Your task to perform on an android device: turn on bluetooth scan Image 0: 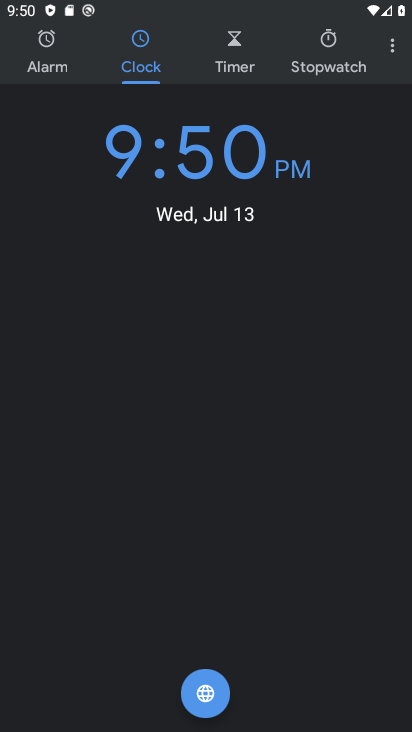
Step 0: press home button
Your task to perform on an android device: turn on bluetooth scan Image 1: 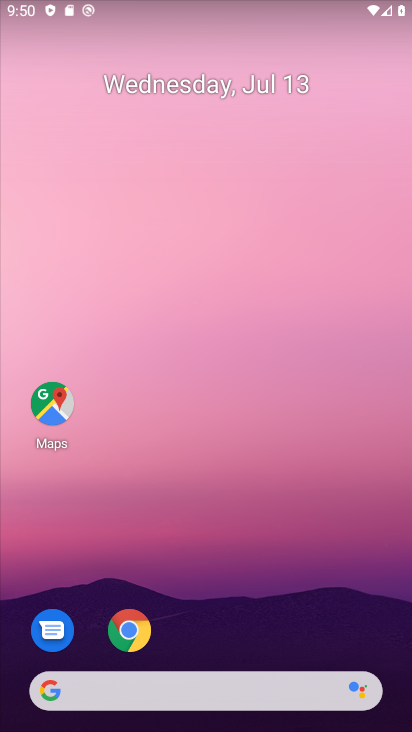
Step 1: drag from (263, 607) to (268, 56)
Your task to perform on an android device: turn on bluetooth scan Image 2: 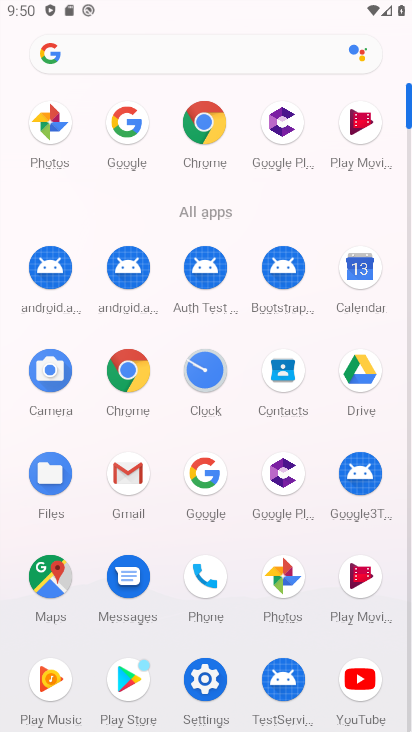
Step 2: click (203, 675)
Your task to perform on an android device: turn on bluetooth scan Image 3: 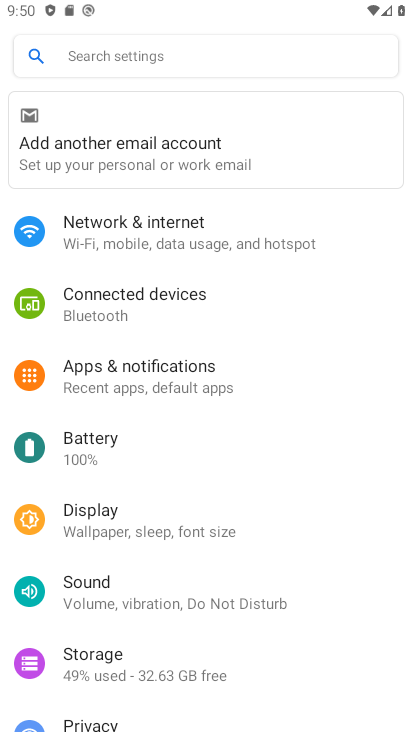
Step 3: drag from (92, 707) to (91, 483)
Your task to perform on an android device: turn on bluetooth scan Image 4: 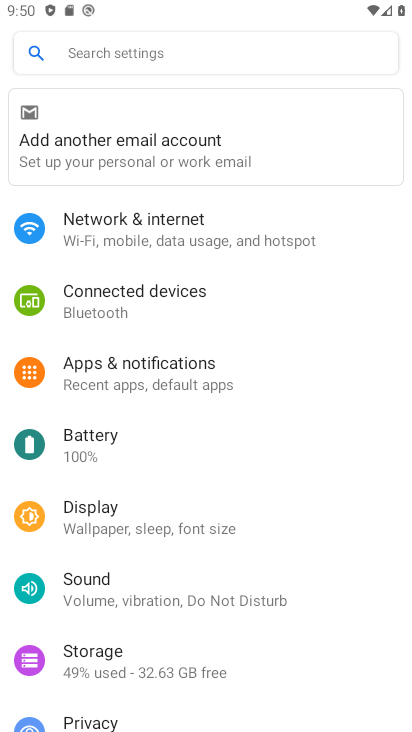
Step 4: drag from (116, 669) to (109, 312)
Your task to perform on an android device: turn on bluetooth scan Image 5: 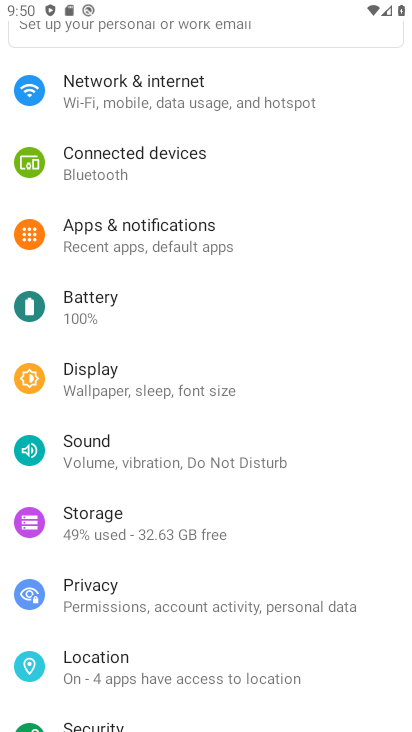
Step 5: click (94, 652)
Your task to perform on an android device: turn on bluetooth scan Image 6: 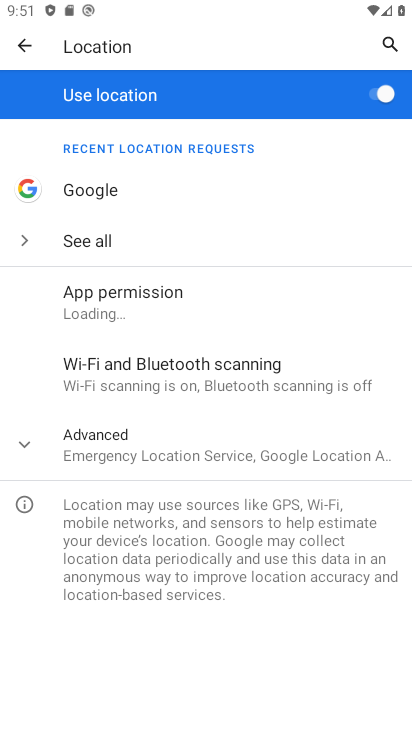
Step 6: click (166, 377)
Your task to perform on an android device: turn on bluetooth scan Image 7: 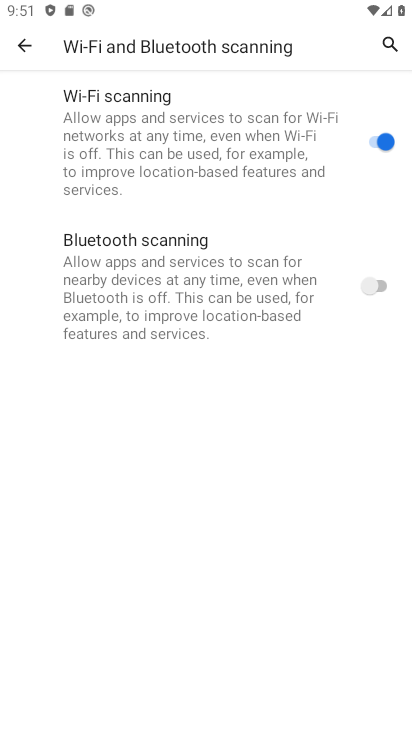
Step 7: click (371, 281)
Your task to perform on an android device: turn on bluetooth scan Image 8: 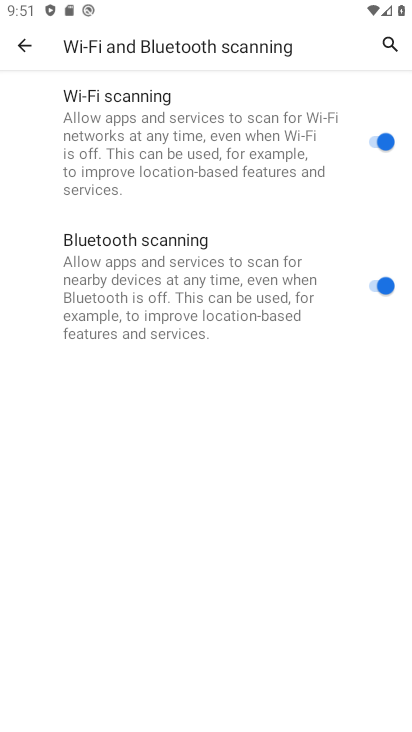
Step 8: task complete